Your task to perform on an android device: turn on airplane mode Image 0: 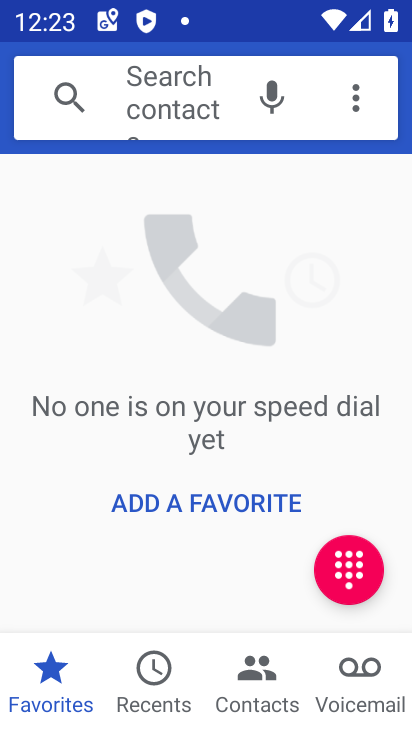
Step 0: press home button
Your task to perform on an android device: turn on airplane mode Image 1: 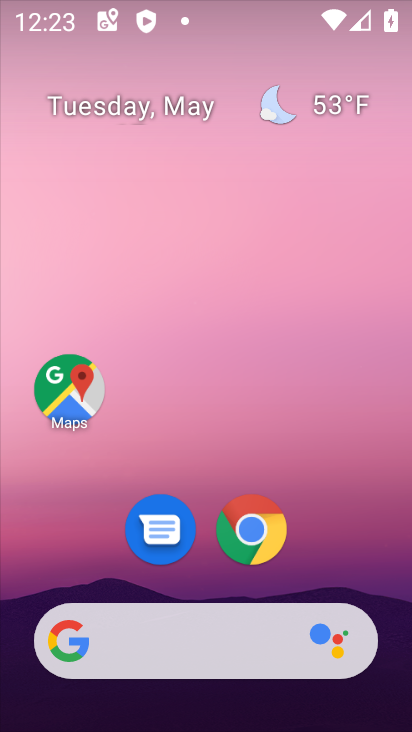
Step 1: drag from (231, 728) to (225, 130)
Your task to perform on an android device: turn on airplane mode Image 2: 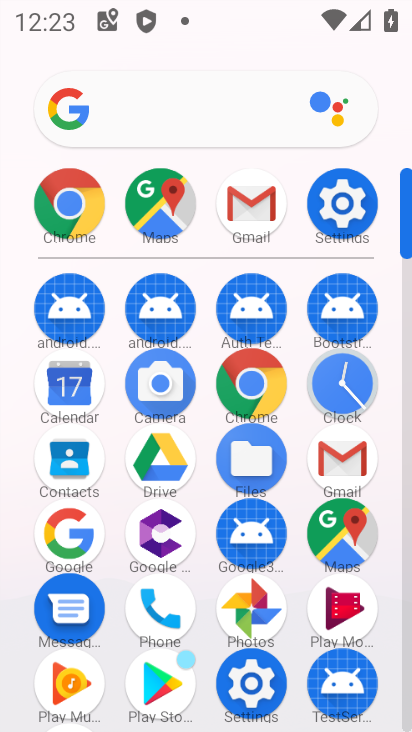
Step 2: click (341, 207)
Your task to perform on an android device: turn on airplane mode Image 3: 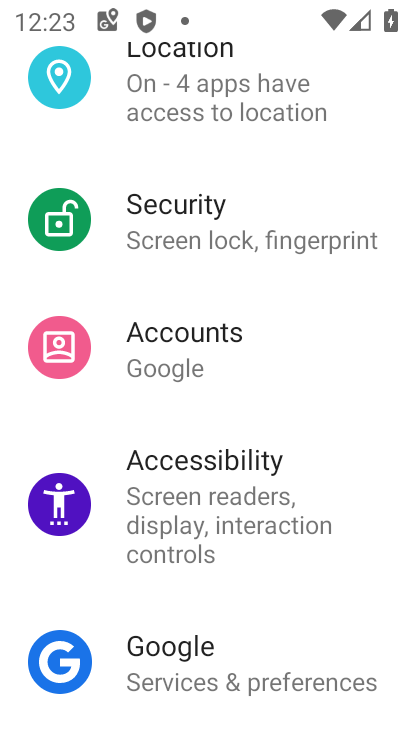
Step 3: drag from (299, 141) to (261, 507)
Your task to perform on an android device: turn on airplane mode Image 4: 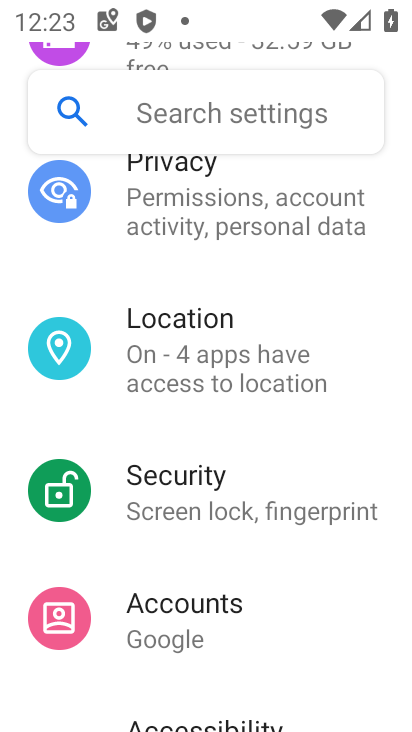
Step 4: drag from (215, 167) to (210, 524)
Your task to perform on an android device: turn on airplane mode Image 5: 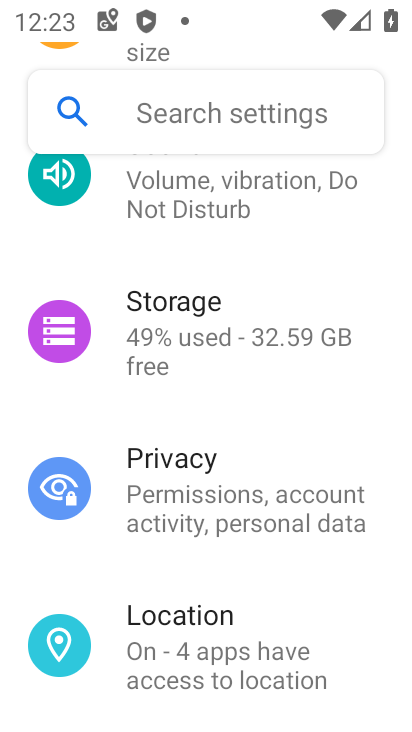
Step 5: drag from (212, 192) to (190, 554)
Your task to perform on an android device: turn on airplane mode Image 6: 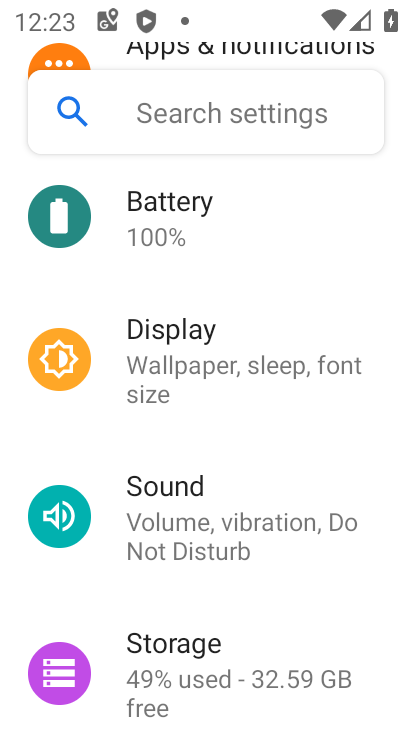
Step 6: drag from (173, 192) to (165, 552)
Your task to perform on an android device: turn on airplane mode Image 7: 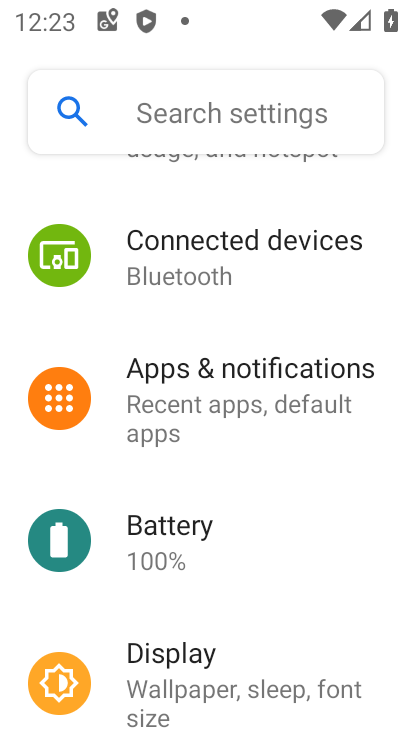
Step 7: drag from (204, 217) to (199, 526)
Your task to perform on an android device: turn on airplane mode Image 8: 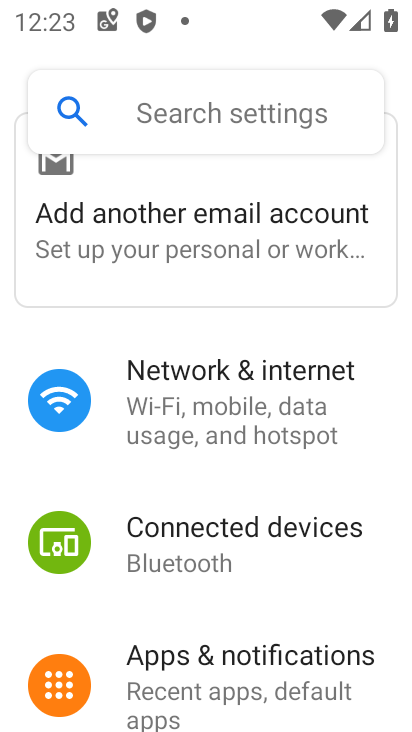
Step 8: click (192, 381)
Your task to perform on an android device: turn on airplane mode Image 9: 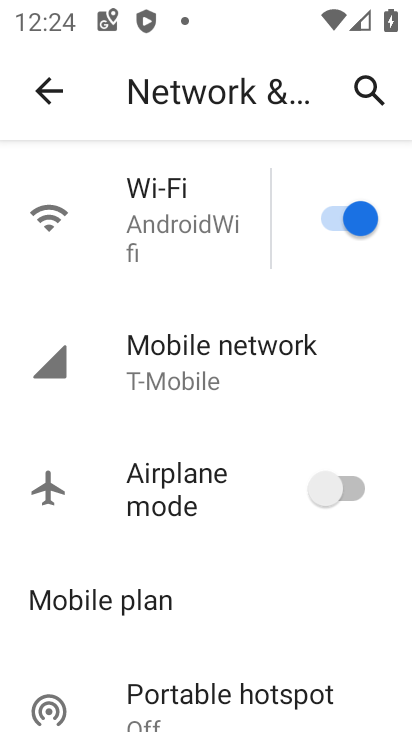
Step 9: drag from (148, 195) to (147, 602)
Your task to perform on an android device: turn on airplane mode Image 10: 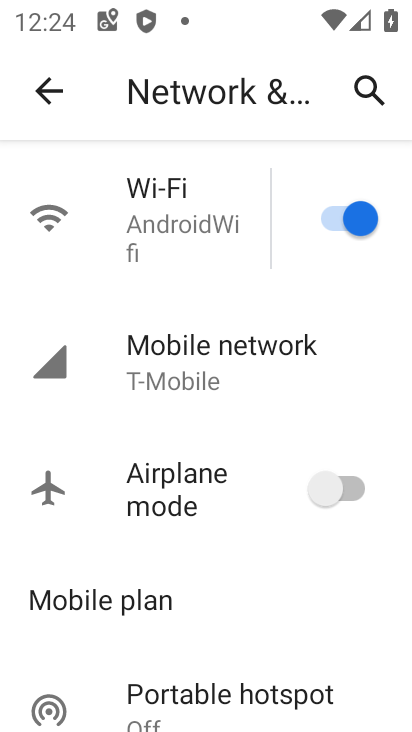
Step 10: click (355, 493)
Your task to perform on an android device: turn on airplane mode Image 11: 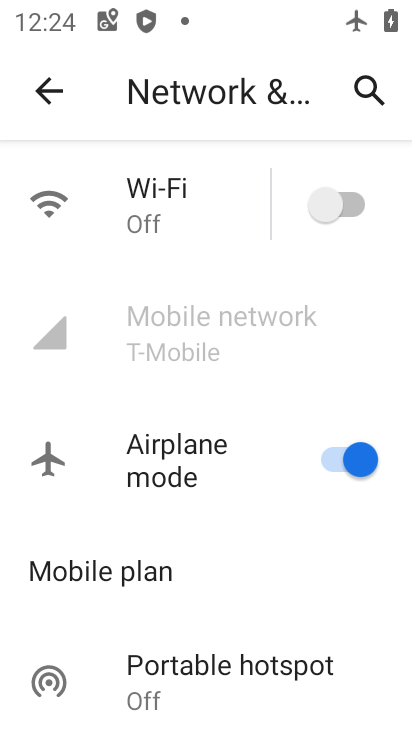
Step 11: task complete